Your task to perform on an android device: Is it going to rain tomorrow? Image 0: 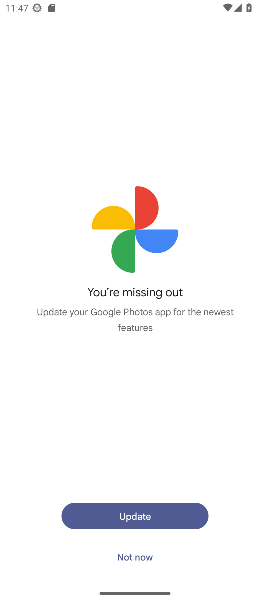
Step 0: press back button
Your task to perform on an android device: Is it going to rain tomorrow? Image 1: 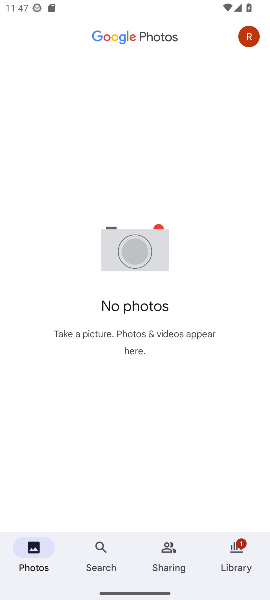
Step 1: press back button
Your task to perform on an android device: Is it going to rain tomorrow? Image 2: 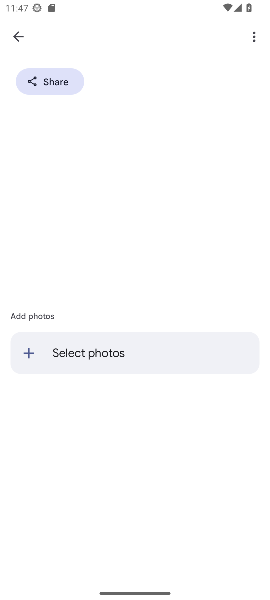
Step 2: press back button
Your task to perform on an android device: Is it going to rain tomorrow? Image 3: 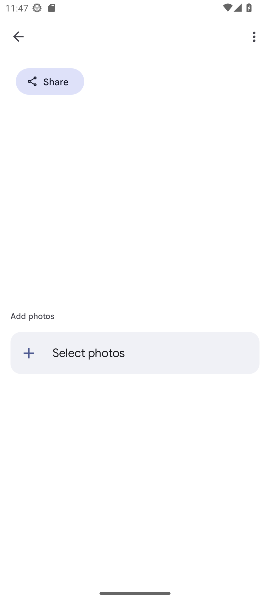
Step 3: press back button
Your task to perform on an android device: Is it going to rain tomorrow? Image 4: 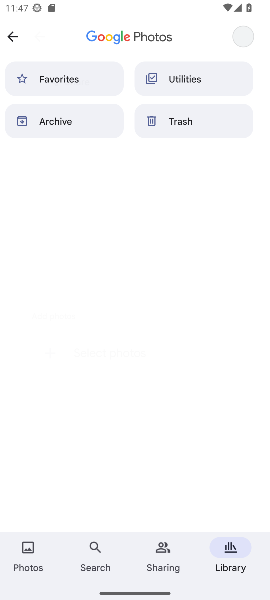
Step 4: press back button
Your task to perform on an android device: Is it going to rain tomorrow? Image 5: 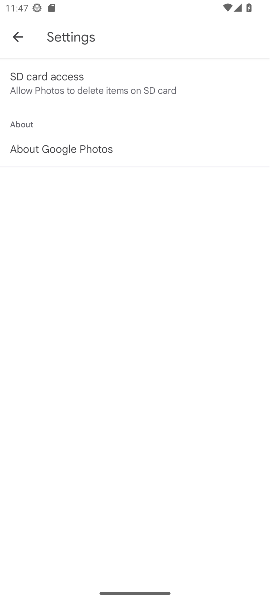
Step 5: press back button
Your task to perform on an android device: Is it going to rain tomorrow? Image 6: 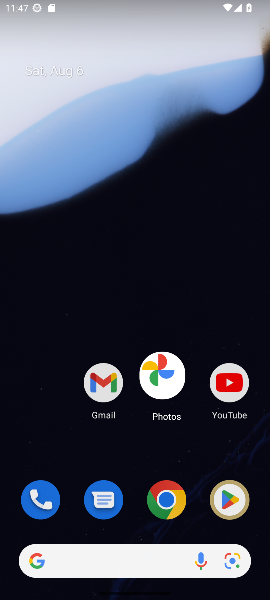
Step 6: press back button
Your task to perform on an android device: Is it going to rain tomorrow? Image 7: 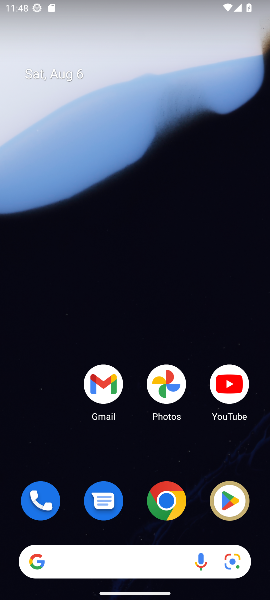
Step 7: press home button
Your task to perform on an android device: Is it going to rain tomorrow? Image 8: 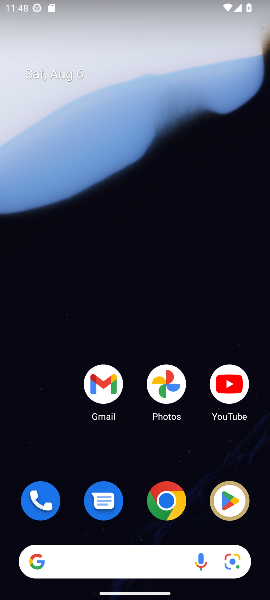
Step 8: click (111, 564)
Your task to perform on an android device: Is it going to rain tomorrow? Image 9: 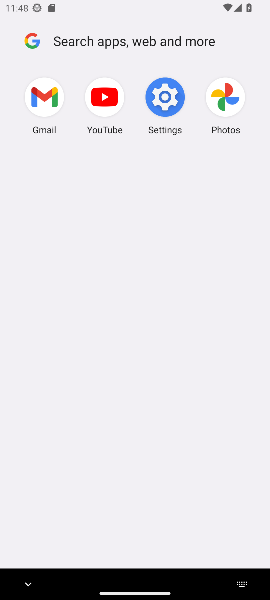
Step 9: type "wheather"
Your task to perform on an android device: Is it going to rain tomorrow? Image 10: 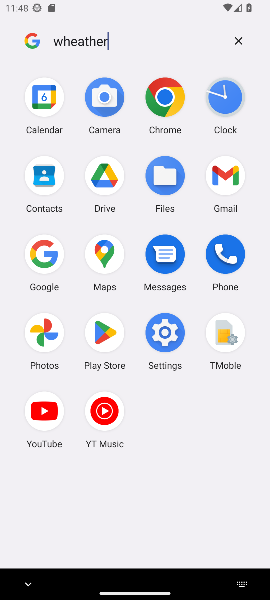
Step 10: click (40, 270)
Your task to perform on an android device: Is it going to rain tomorrow? Image 11: 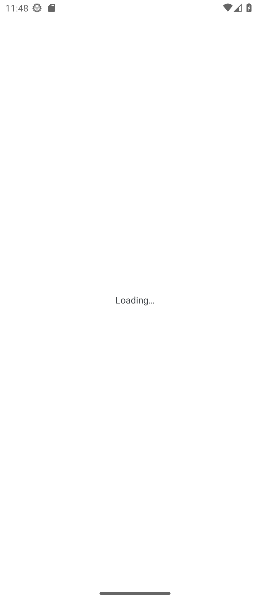
Step 11: task complete